Your task to perform on an android device: change the upload size in google photos Image 0: 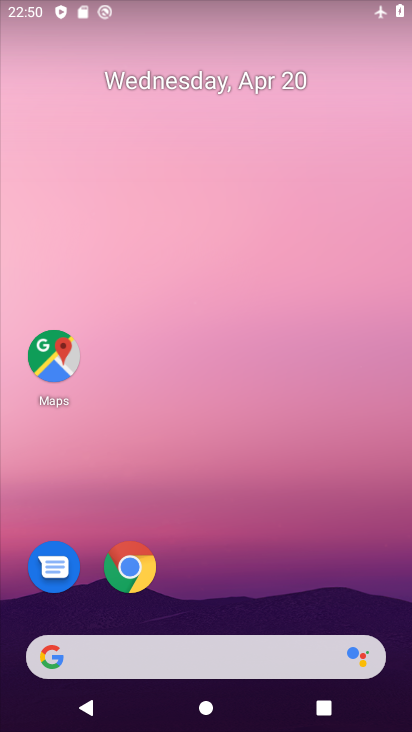
Step 0: drag from (268, 363) to (268, 273)
Your task to perform on an android device: change the upload size in google photos Image 1: 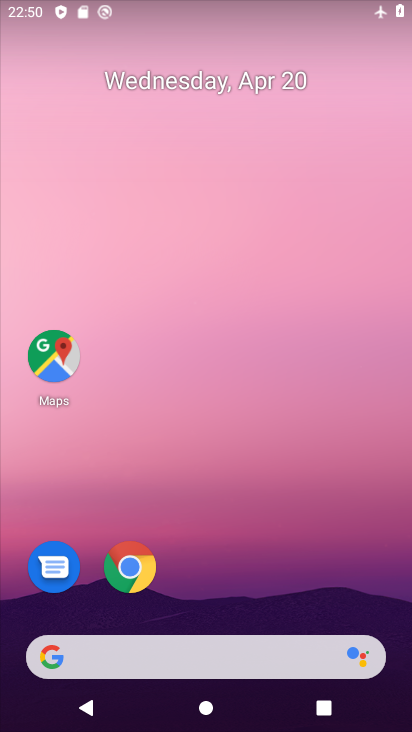
Step 1: drag from (198, 633) to (256, 269)
Your task to perform on an android device: change the upload size in google photos Image 2: 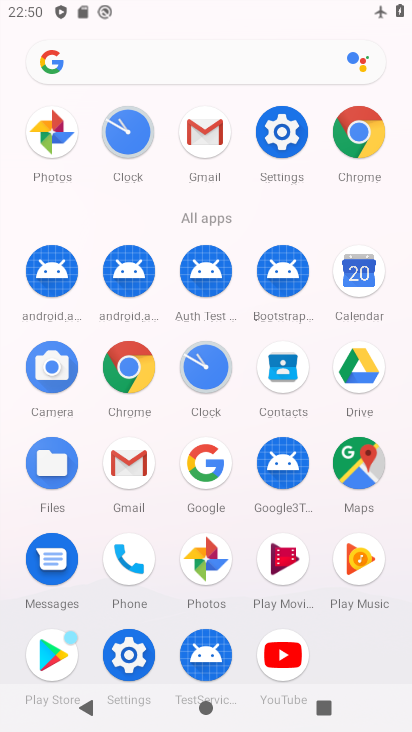
Step 2: click (195, 556)
Your task to perform on an android device: change the upload size in google photos Image 3: 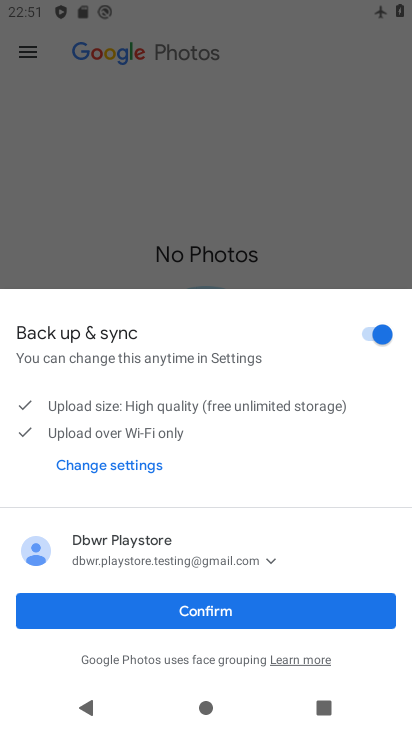
Step 3: click (241, 609)
Your task to perform on an android device: change the upload size in google photos Image 4: 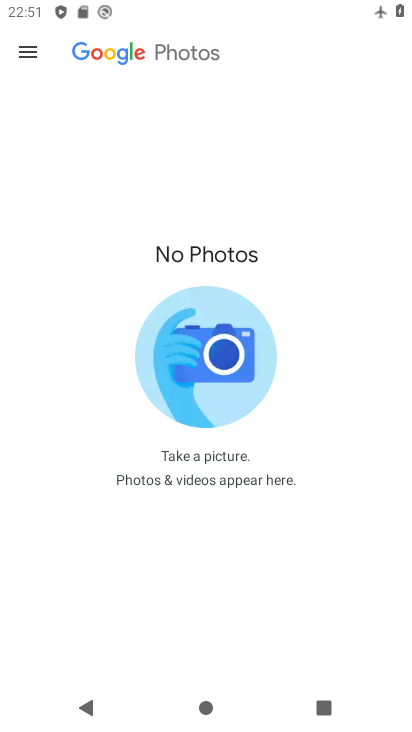
Step 4: click (241, 600)
Your task to perform on an android device: change the upload size in google photos Image 5: 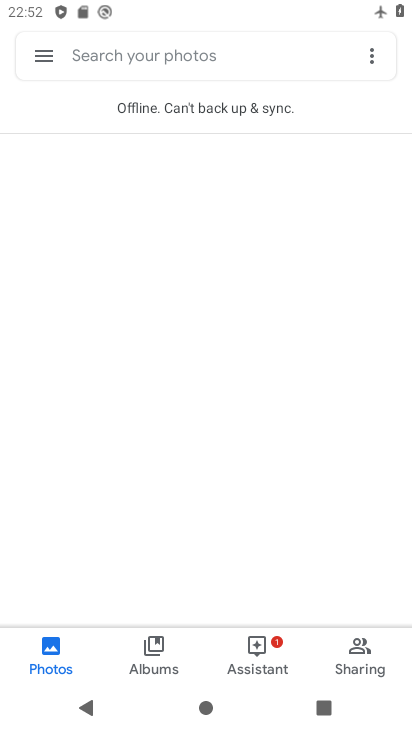
Step 5: click (44, 50)
Your task to perform on an android device: change the upload size in google photos Image 6: 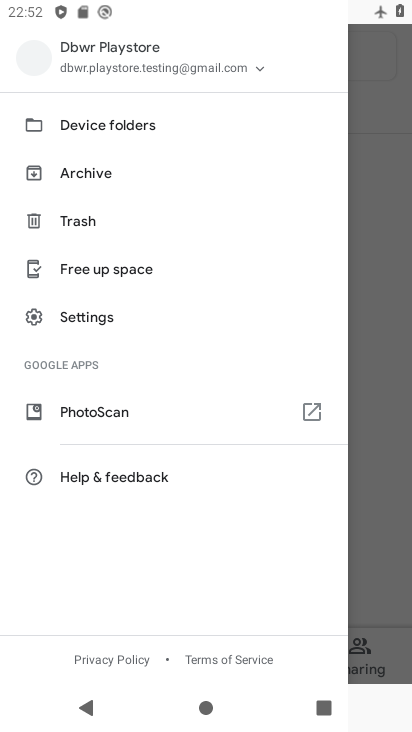
Step 6: click (109, 311)
Your task to perform on an android device: change the upload size in google photos Image 7: 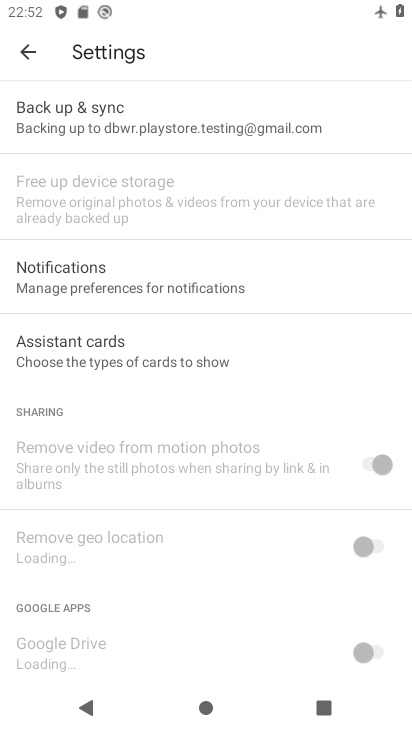
Step 7: click (149, 117)
Your task to perform on an android device: change the upload size in google photos Image 8: 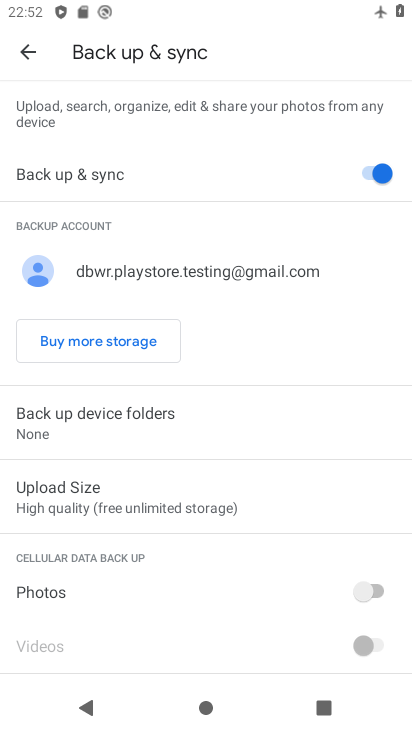
Step 8: click (188, 499)
Your task to perform on an android device: change the upload size in google photos Image 9: 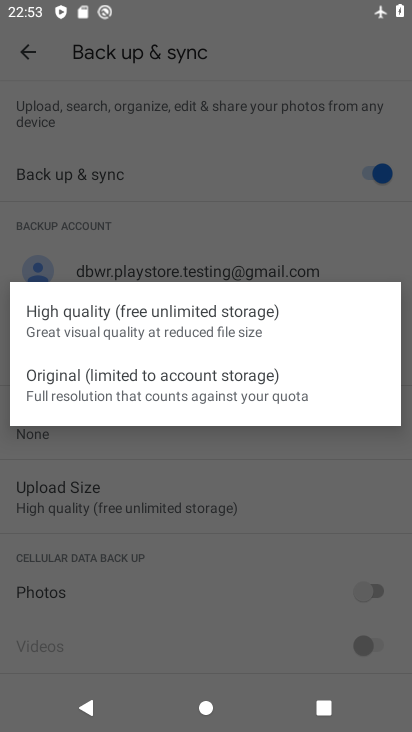
Step 9: click (113, 385)
Your task to perform on an android device: change the upload size in google photos Image 10: 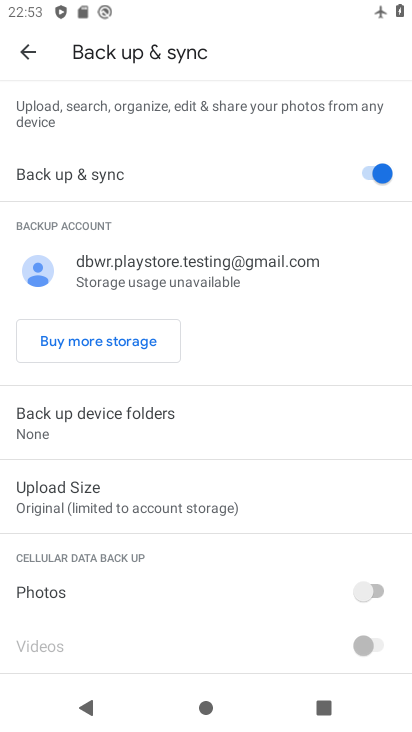
Step 10: task complete